Your task to perform on an android device: When is my next meeting? Image 0: 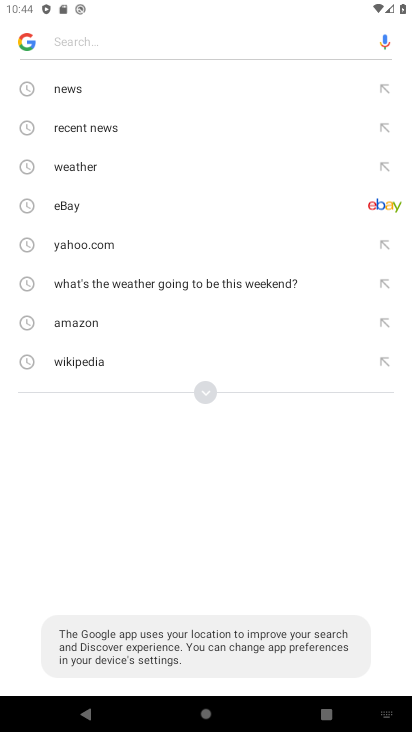
Step 0: press home button
Your task to perform on an android device: When is my next meeting? Image 1: 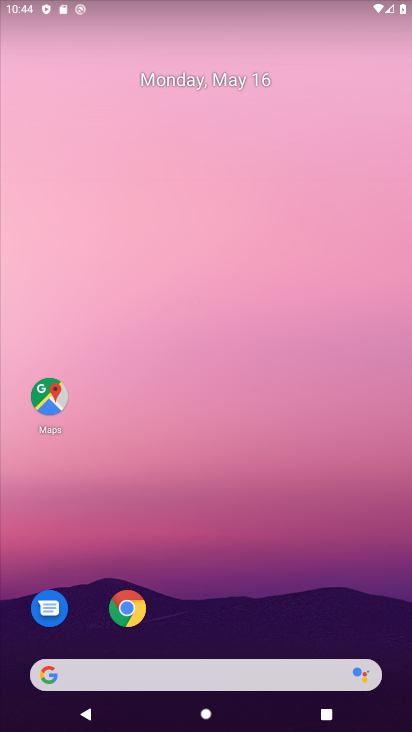
Step 1: drag from (362, 564) to (350, 129)
Your task to perform on an android device: When is my next meeting? Image 2: 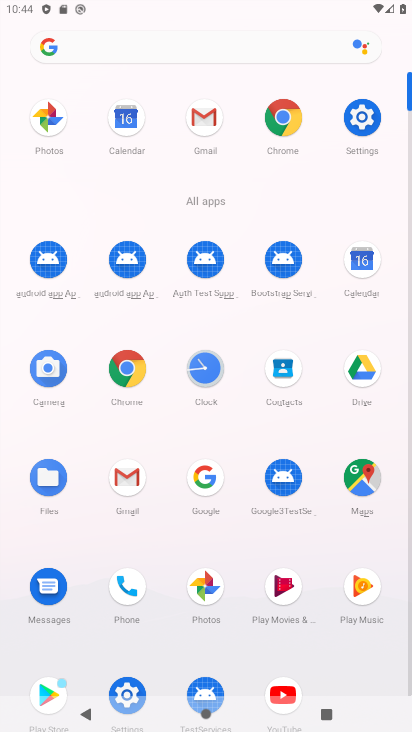
Step 2: click (125, 122)
Your task to perform on an android device: When is my next meeting? Image 3: 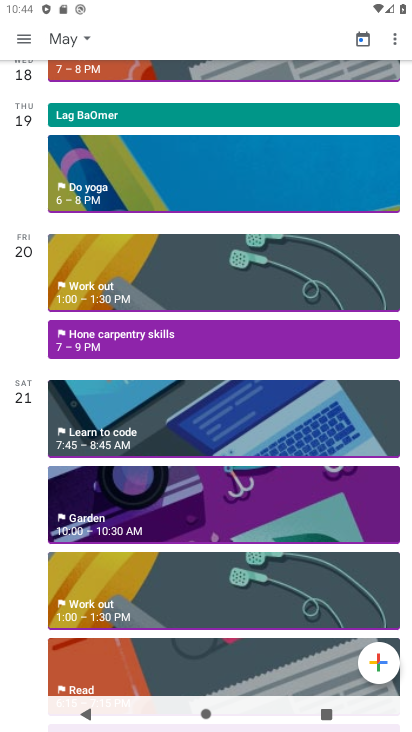
Step 3: task complete